Your task to perform on an android device: Open wifi settings Image 0: 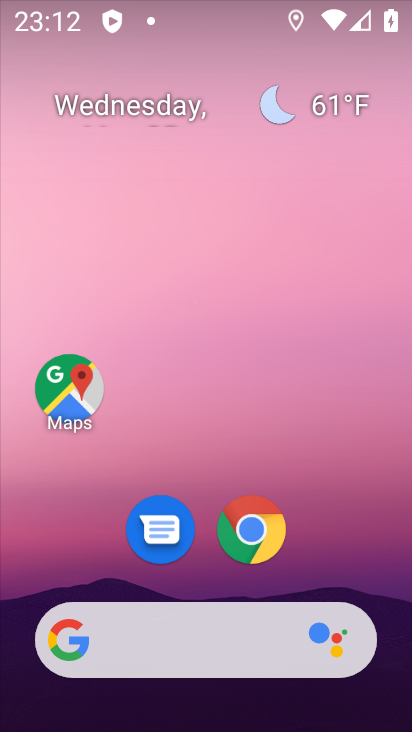
Step 0: drag from (388, 593) to (408, 236)
Your task to perform on an android device: Open wifi settings Image 1: 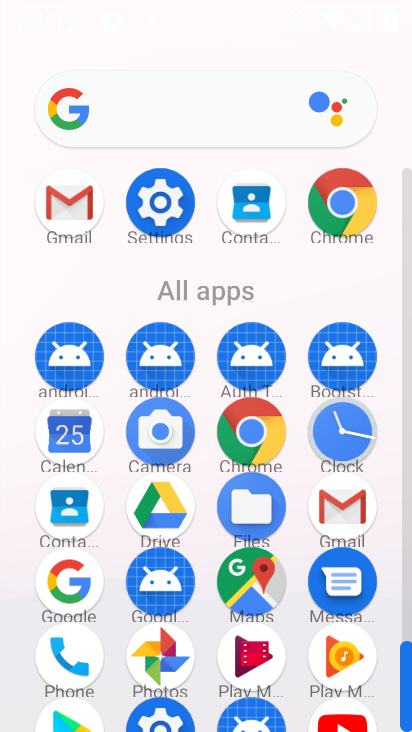
Step 1: click (165, 222)
Your task to perform on an android device: Open wifi settings Image 2: 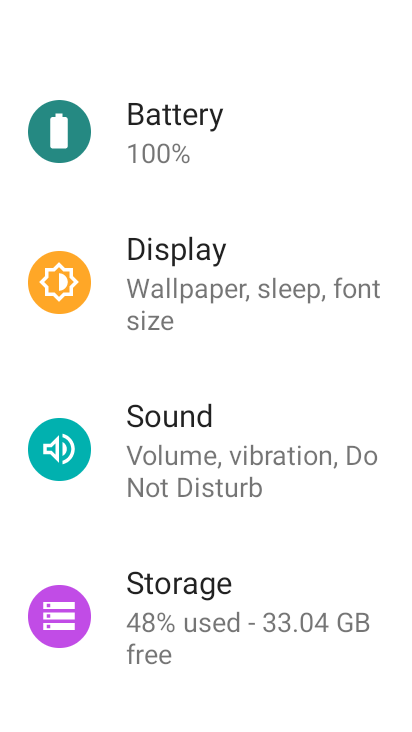
Step 2: drag from (322, 393) to (341, 316)
Your task to perform on an android device: Open wifi settings Image 3: 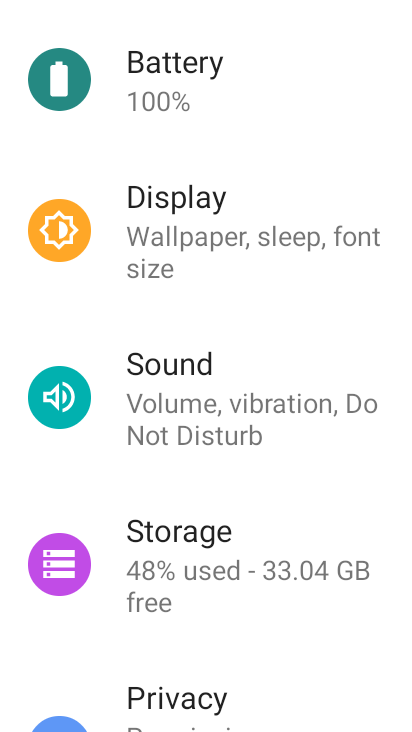
Step 3: drag from (341, 487) to (341, 368)
Your task to perform on an android device: Open wifi settings Image 4: 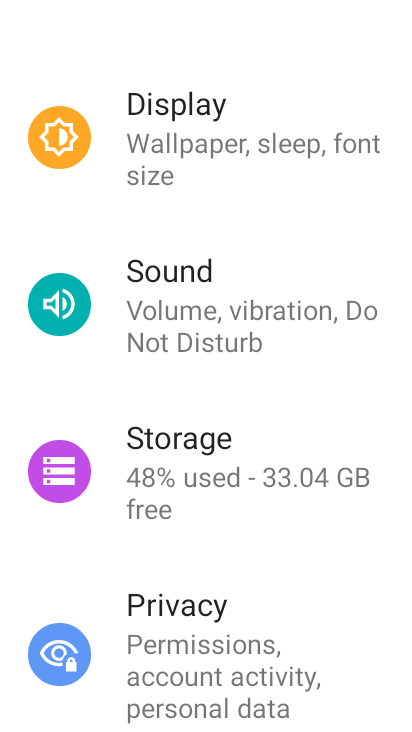
Step 4: drag from (356, 575) to (370, 437)
Your task to perform on an android device: Open wifi settings Image 5: 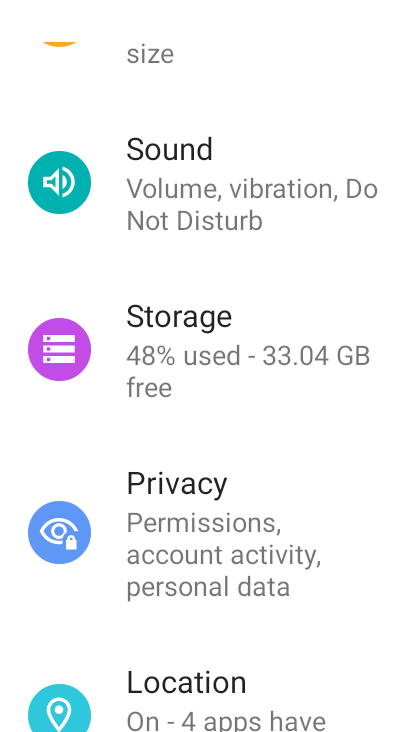
Step 5: drag from (366, 597) to (368, 483)
Your task to perform on an android device: Open wifi settings Image 6: 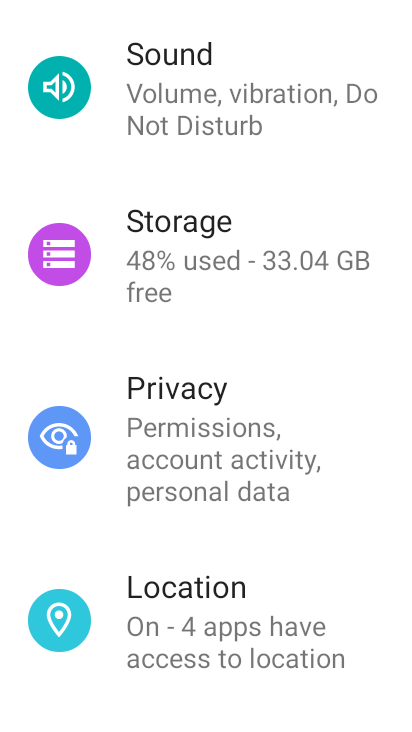
Step 6: drag from (360, 591) to (364, 488)
Your task to perform on an android device: Open wifi settings Image 7: 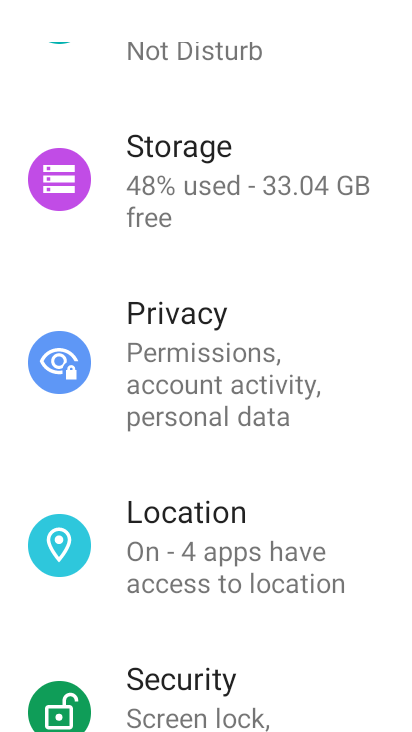
Step 7: drag from (362, 640) to (365, 534)
Your task to perform on an android device: Open wifi settings Image 8: 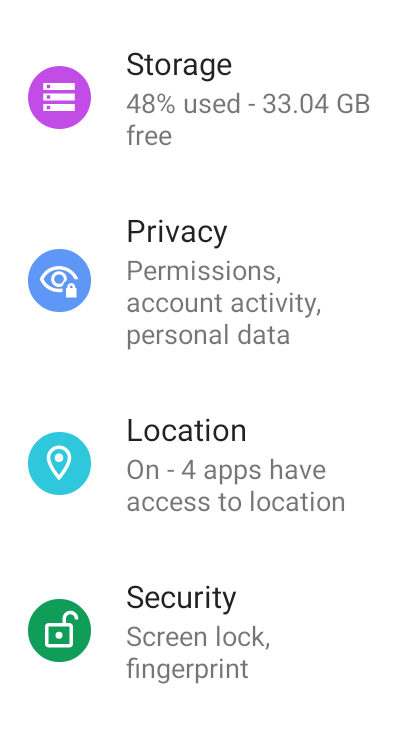
Step 8: drag from (366, 635) to (362, 539)
Your task to perform on an android device: Open wifi settings Image 9: 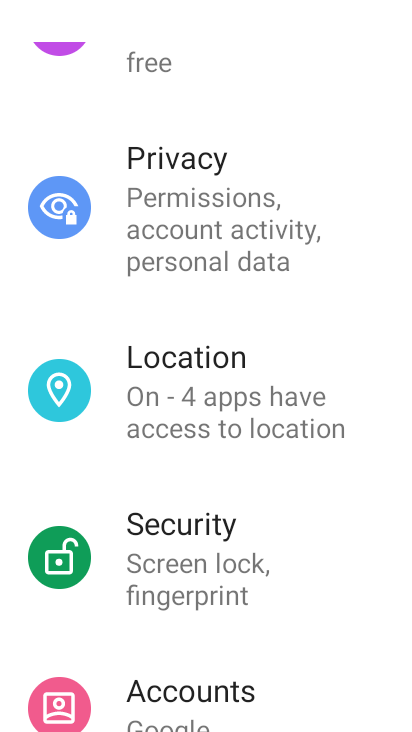
Step 9: drag from (340, 624) to (351, 509)
Your task to perform on an android device: Open wifi settings Image 10: 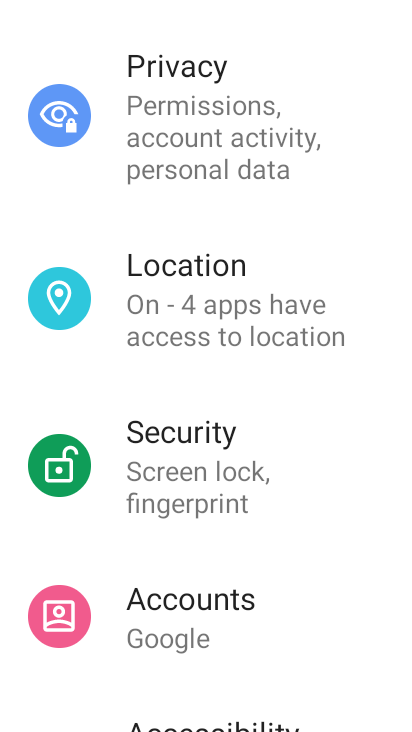
Step 10: drag from (354, 619) to (357, 514)
Your task to perform on an android device: Open wifi settings Image 11: 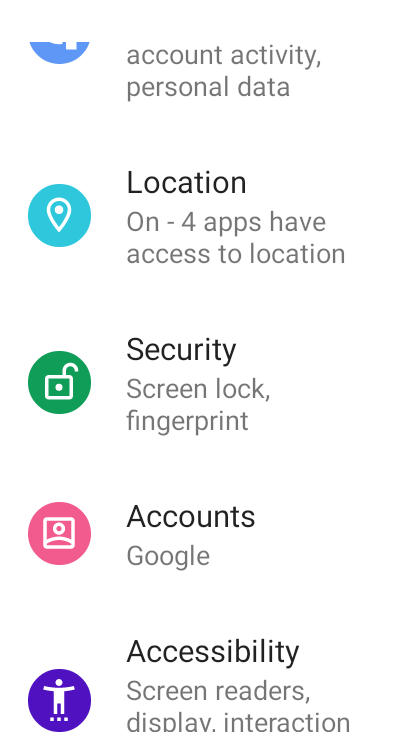
Step 11: drag from (354, 634) to (341, 517)
Your task to perform on an android device: Open wifi settings Image 12: 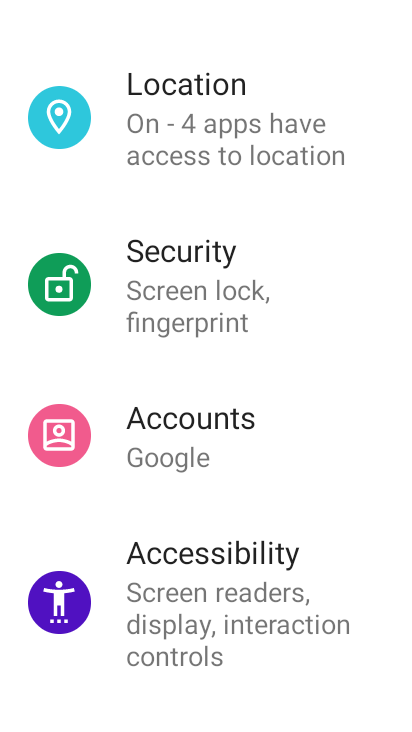
Step 12: drag from (355, 667) to (357, 517)
Your task to perform on an android device: Open wifi settings Image 13: 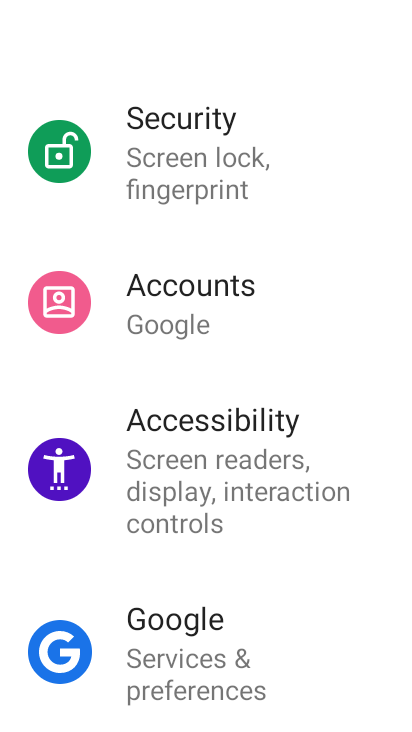
Step 13: drag from (375, 399) to (375, 487)
Your task to perform on an android device: Open wifi settings Image 14: 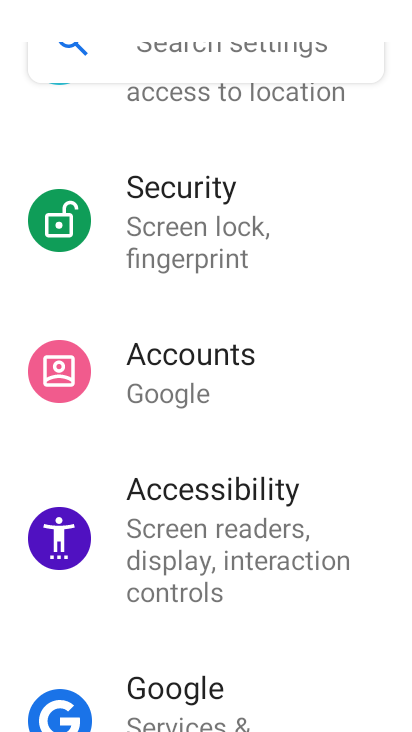
Step 14: drag from (366, 400) to (364, 493)
Your task to perform on an android device: Open wifi settings Image 15: 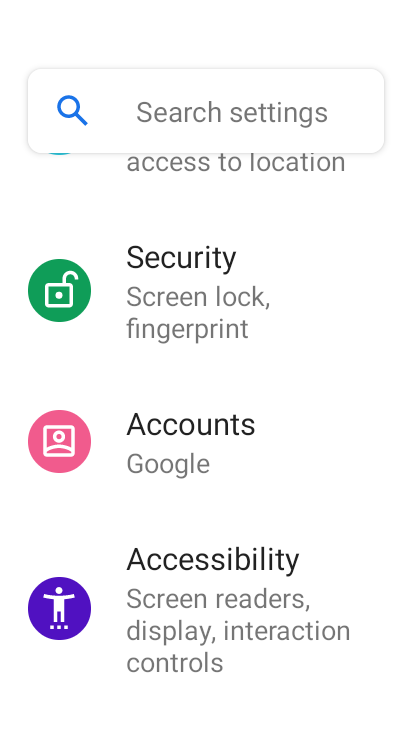
Step 15: drag from (354, 406) to (363, 499)
Your task to perform on an android device: Open wifi settings Image 16: 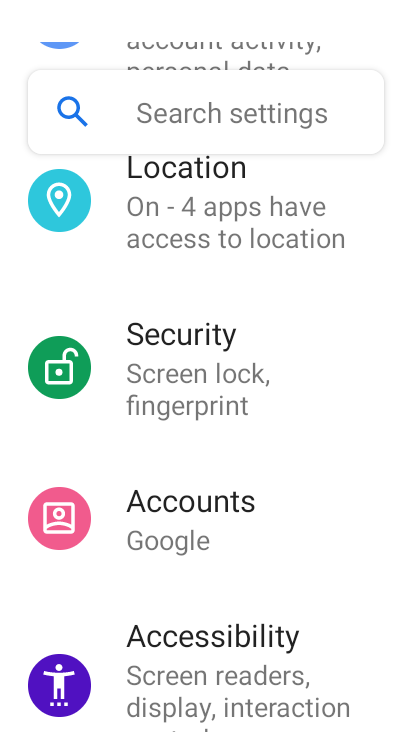
Step 16: drag from (351, 417) to (369, 512)
Your task to perform on an android device: Open wifi settings Image 17: 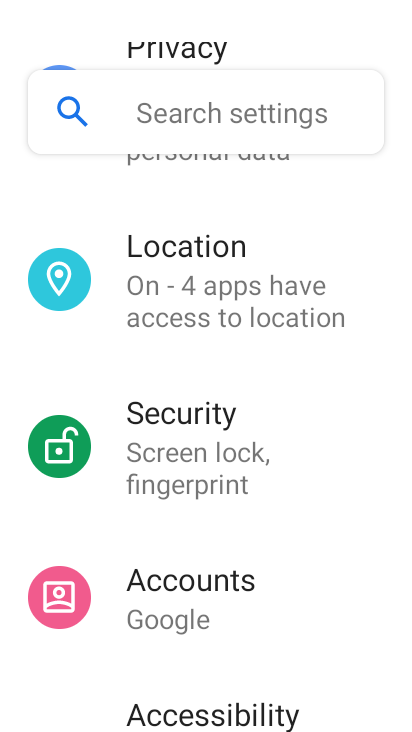
Step 17: drag from (368, 428) to (348, 511)
Your task to perform on an android device: Open wifi settings Image 18: 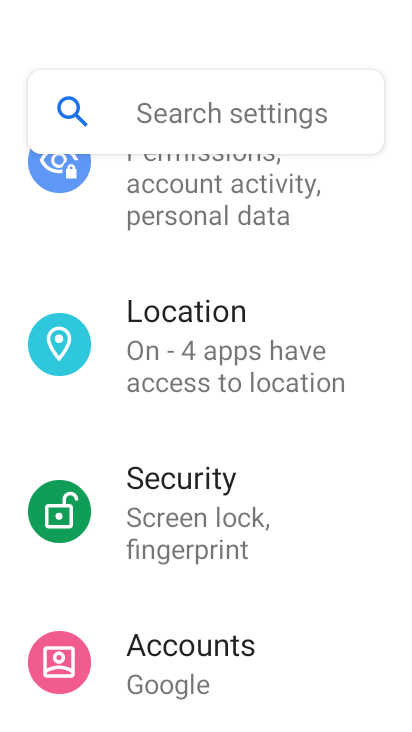
Step 18: drag from (354, 415) to (365, 516)
Your task to perform on an android device: Open wifi settings Image 19: 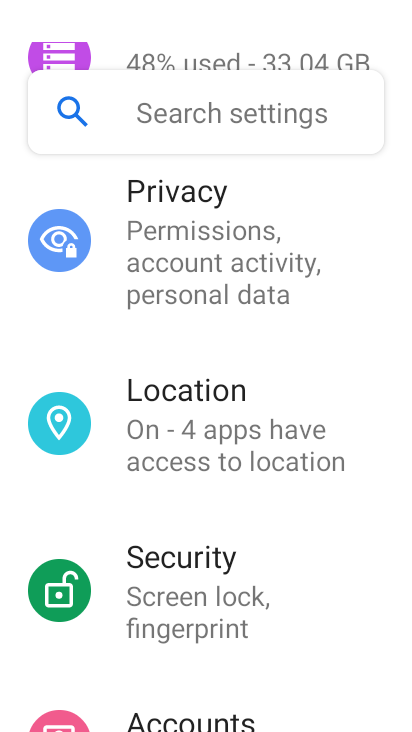
Step 19: drag from (364, 363) to (364, 465)
Your task to perform on an android device: Open wifi settings Image 20: 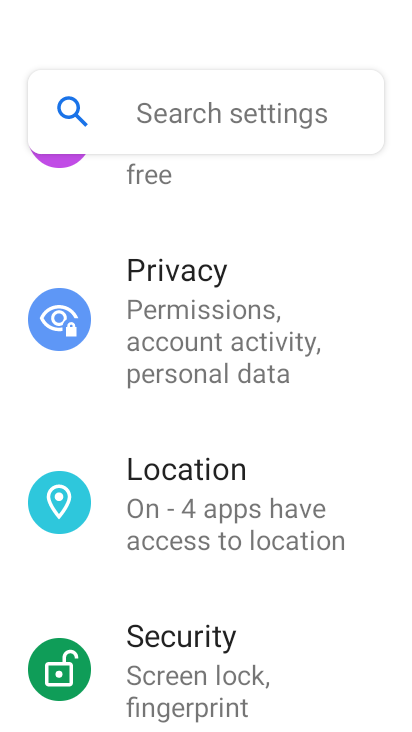
Step 20: drag from (363, 324) to (360, 397)
Your task to perform on an android device: Open wifi settings Image 21: 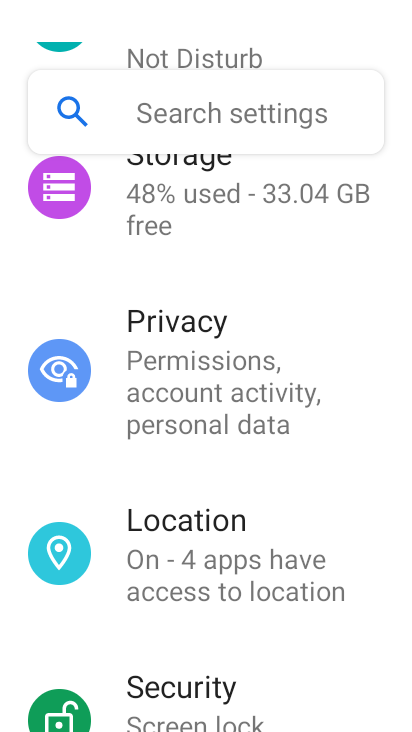
Step 21: drag from (369, 274) to (356, 400)
Your task to perform on an android device: Open wifi settings Image 22: 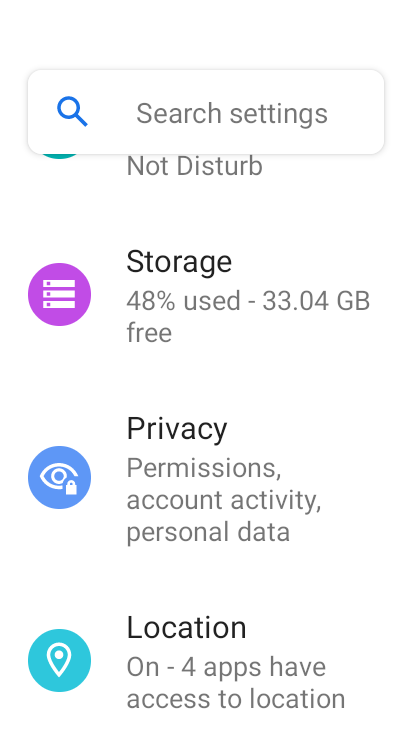
Step 22: drag from (353, 285) to (334, 410)
Your task to perform on an android device: Open wifi settings Image 23: 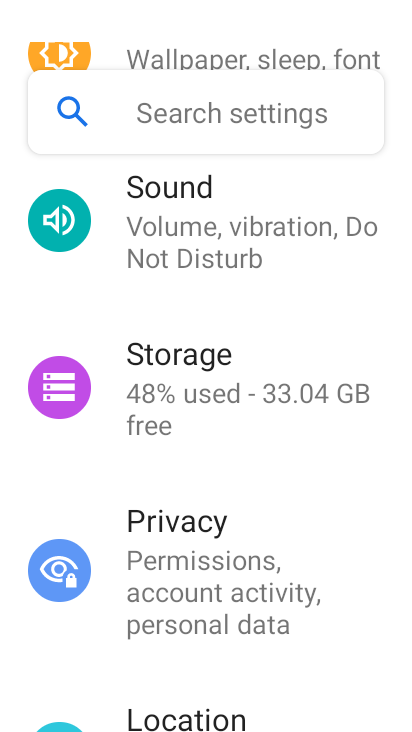
Step 23: drag from (343, 256) to (336, 379)
Your task to perform on an android device: Open wifi settings Image 24: 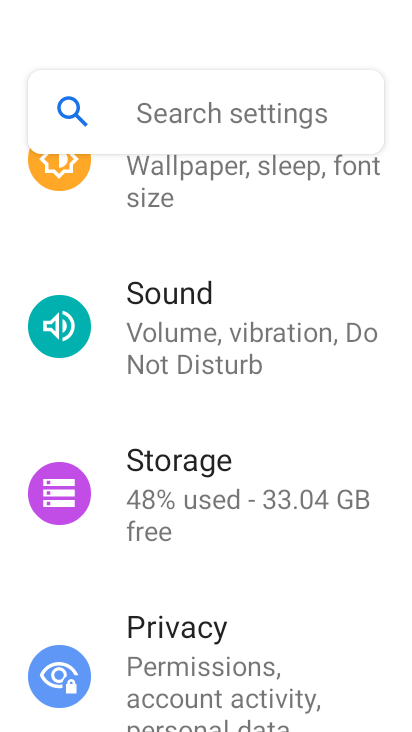
Step 24: drag from (342, 246) to (356, 385)
Your task to perform on an android device: Open wifi settings Image 25: 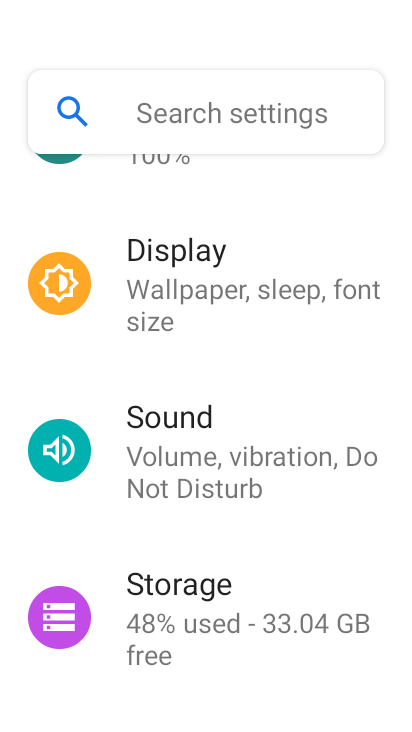
Step 25: drag from (349, 217) to (352, 349)
Your task to perform on an android device: Open wifi settings Image 26: 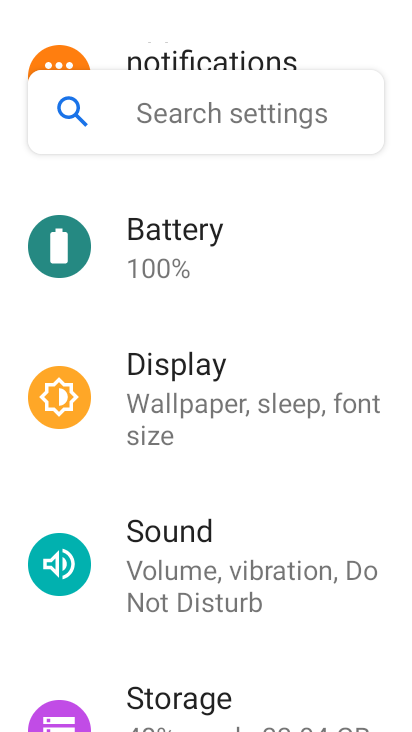
Step 26: drag from (333, 205) to (329, 345)
Your task to perform on an android device: Open wifi settings Image 27: 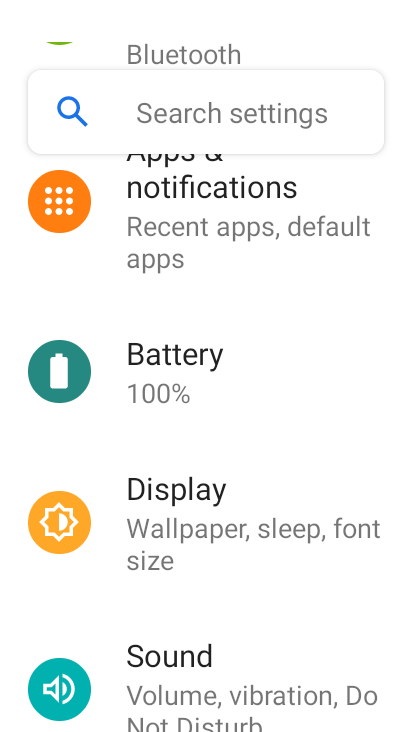
Step 27: drag from (347, 180) to (331, 337)
Your task to perform on an android device: Open wifi settings Image 28: 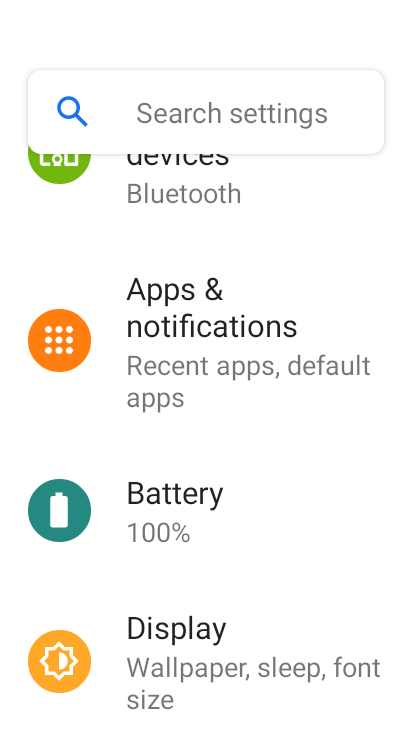
Step 28: drag from (336, 187) to (333, 322)
Your task to perform on an android device: Open wifi settings Image 29: 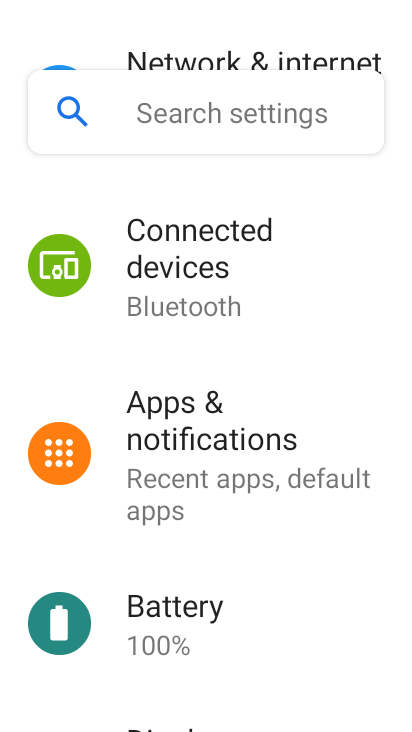
Step 29: drag from (341, 196) to (341, 351)
Your task to perform on an android device: Open wifi settings Image 30: 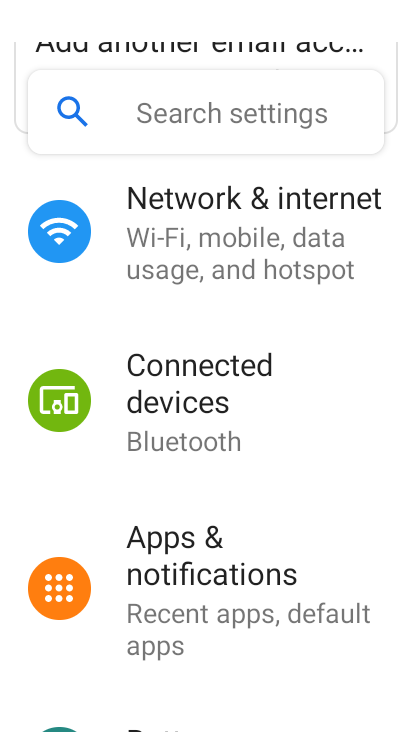
Step 30: click (335, 219)
Your task to perform on an android device: Open wifi settings Image 31: 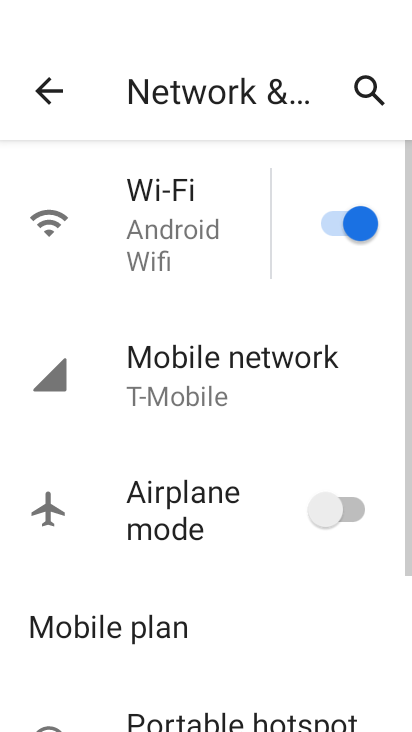
Step 31: click (161, 218)
Your task to perform on an android device: Open wifi settings Image 32: 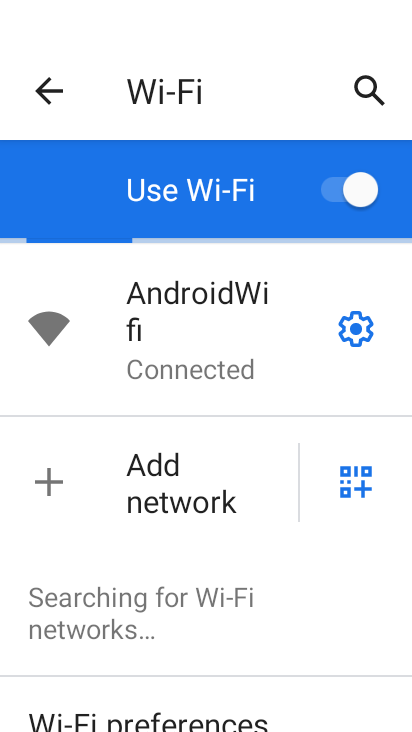
Step 32: task complete